Your task to perform on an android device: check battery use Image 0: 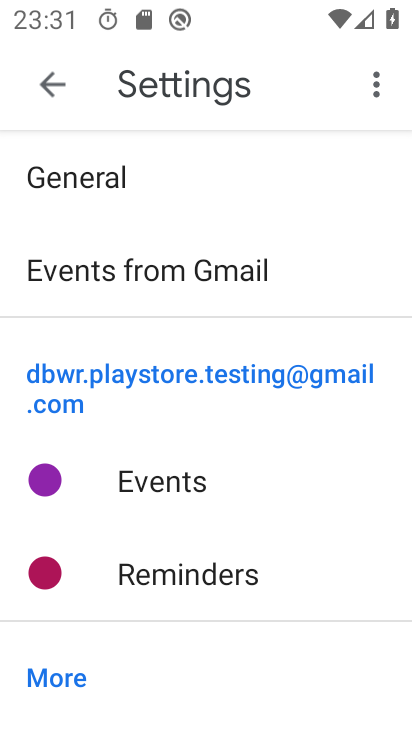
Step 0: press home button
Your task to perform on an android device: check battery use Image 1: 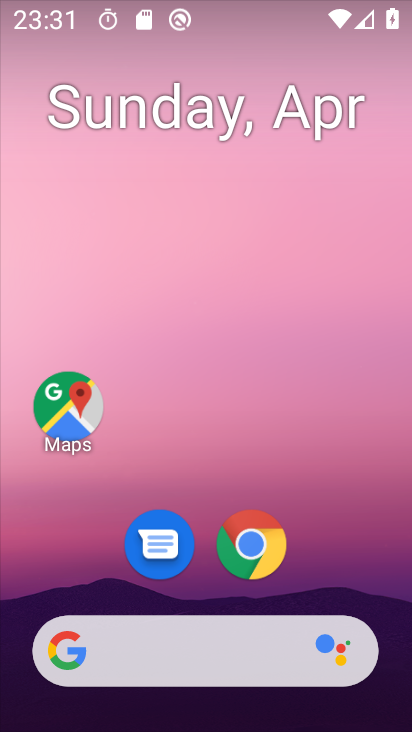
Step 1: drag from (330, 481) to (346, 288)
Your task to perform on an android device: check battery use Image 2: 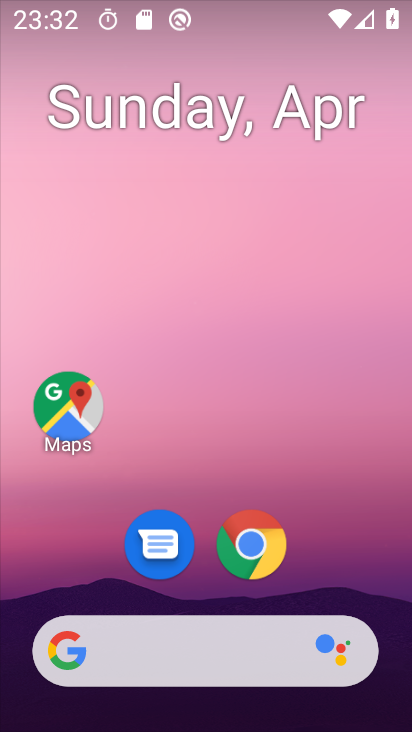
Step 2: drag from (375, 547) to (337, 237)
Your task to perform on an android device: check battery use Image 3: 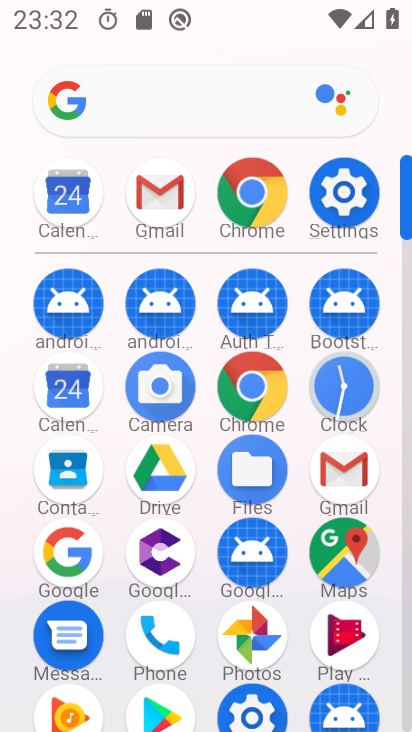
Step 3: click (354, 188)
Your task to perform on an android device: check battery use Image 4: 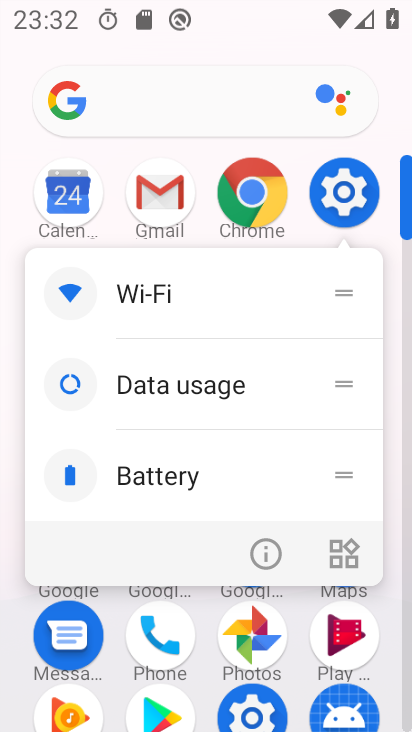
Step 4: click (346, 189)
Your task to perform on an android device: check battery use Image 5: 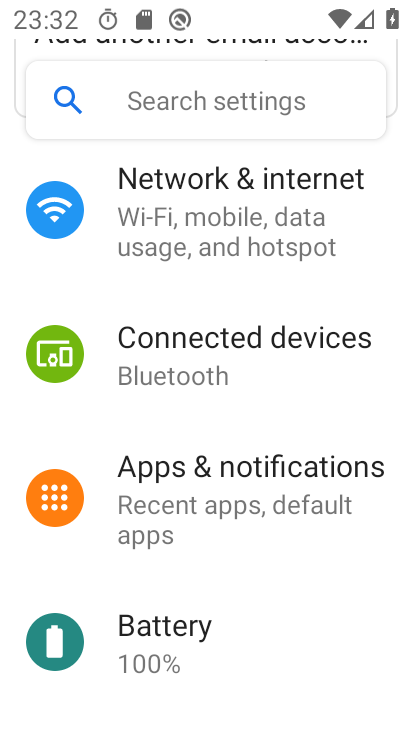
Step 5: click (194, 84)
Your task to perform on an android device: check battery use Image 6: 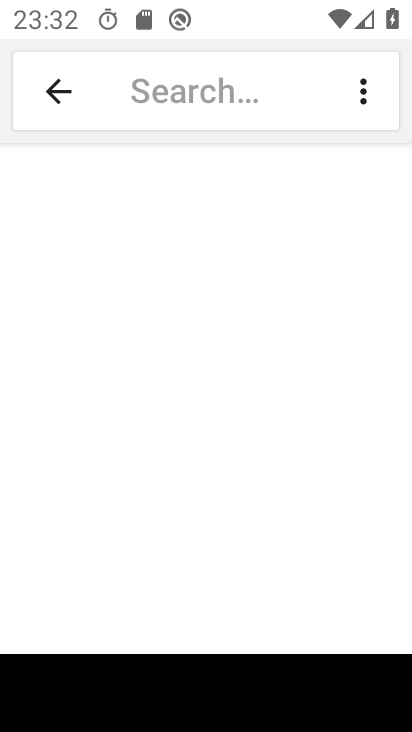
Step 6: type " battery"
Your task to perform on an android device: check battery use Image 7: 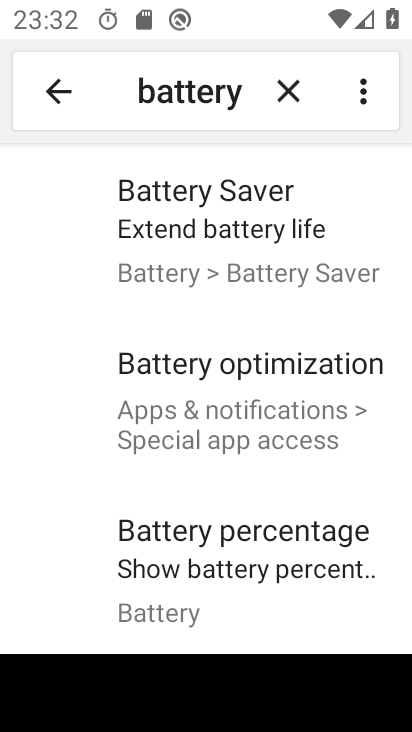
Step 7: click (164, 251)
Your task to perform on an android device: check battery use Image 8: 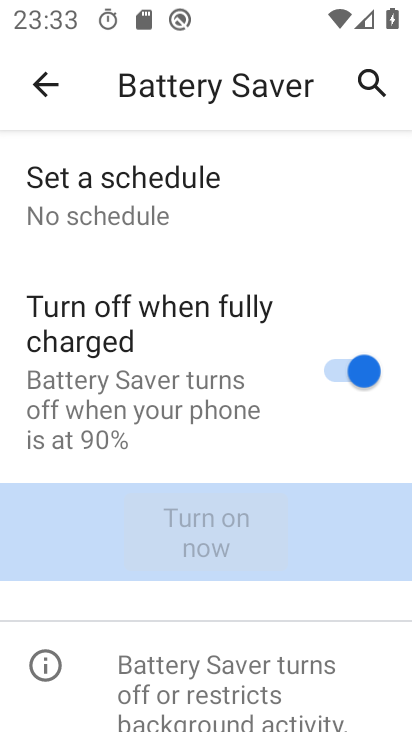
Step 8: drag from (211, 438) to (235, 185)
Your task to perform on an android device: check battery use Image 9: 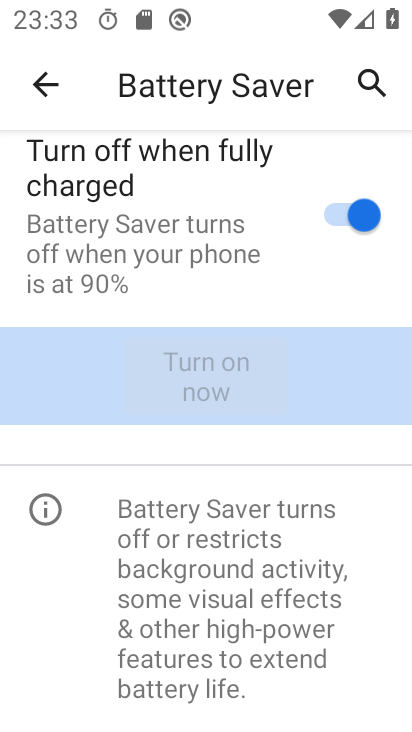
Step 9: click (24, 83)
Your task to perform on an android device: check battery use Image 10: 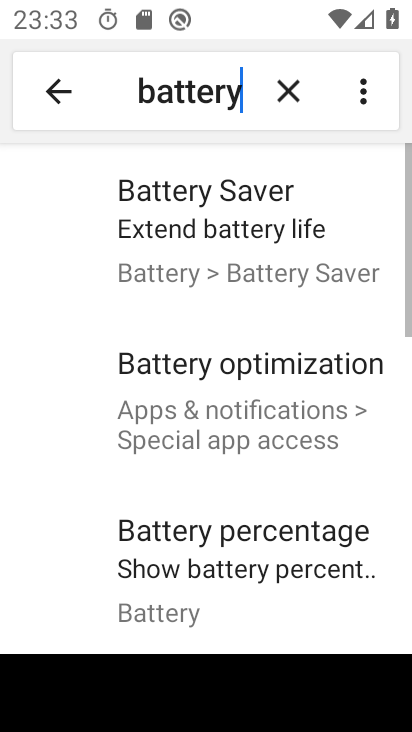
Step 10: click (71, 81)
Your task to perform on an android device: check battery use Image 11: 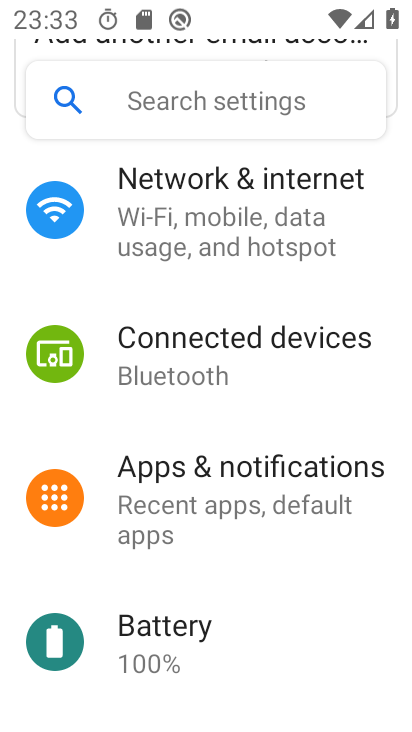
Step 11: click (202, 639)
Your task to perform on an android device: check battery use Image 12: 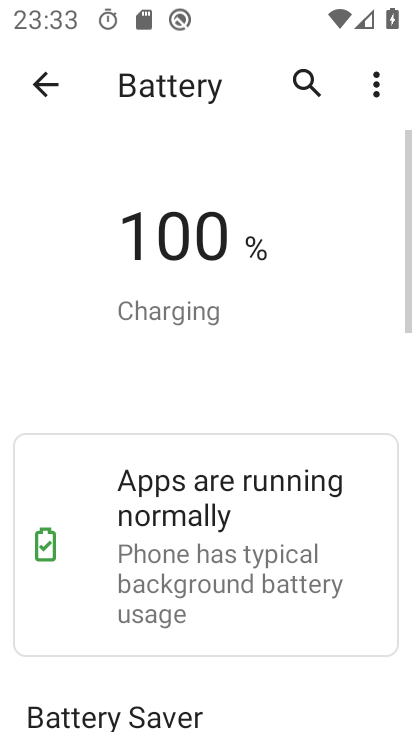
Step 12: drag from (271, 650) to (281, 307)
Your task to perform on an android device: check battery use Image 13: 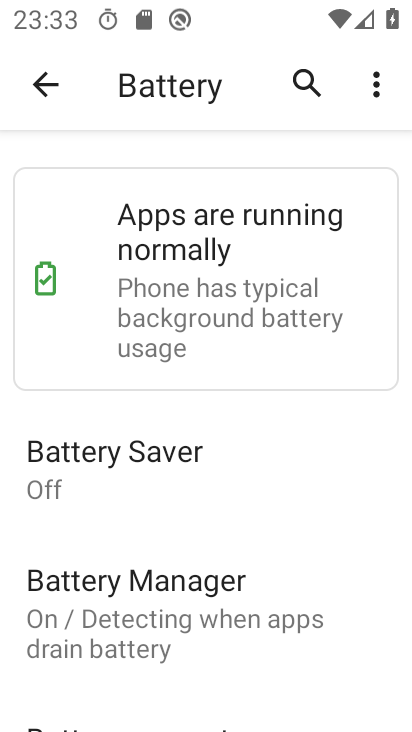
Step 13: drag from (231, 582) to (260, 240)
Your task to perform on an android device: check battery use Image 14: 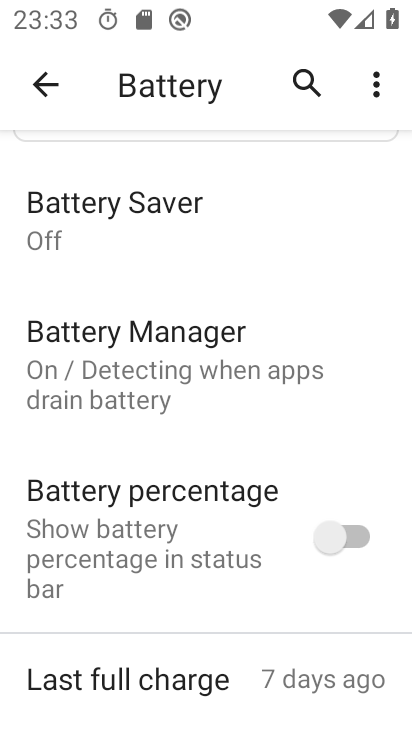
Step 14: click (176, 365)
Your task to perform on an android device: check battery use Image 15: 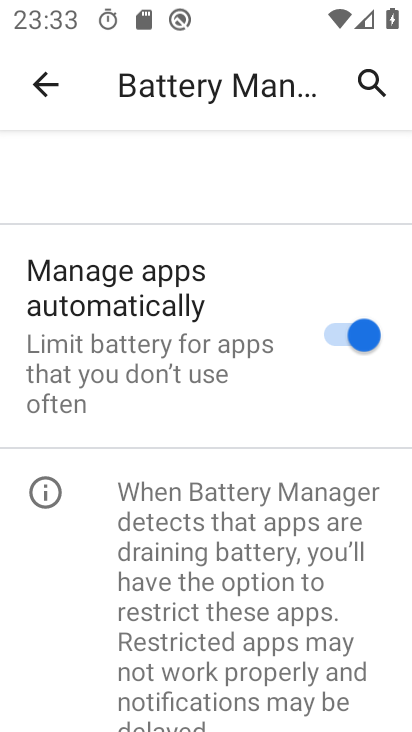
Step 15: drag from (198, 375) to (264, 111)
Your task to perform on an android device: check battery use Image 16: 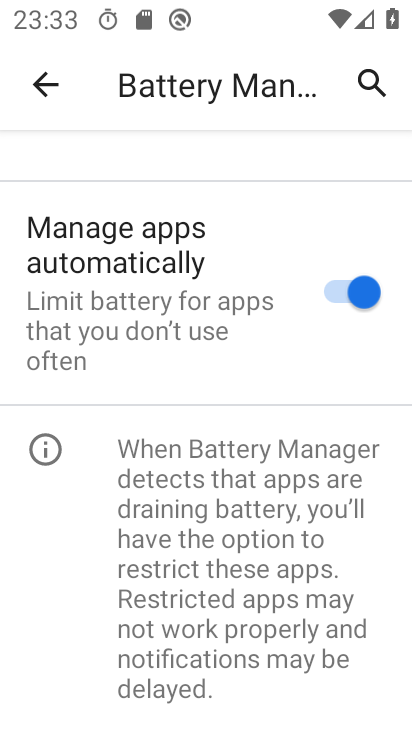
Step 16: click (36, 77)
Your task to perform on an android device: check battery use Image 17: 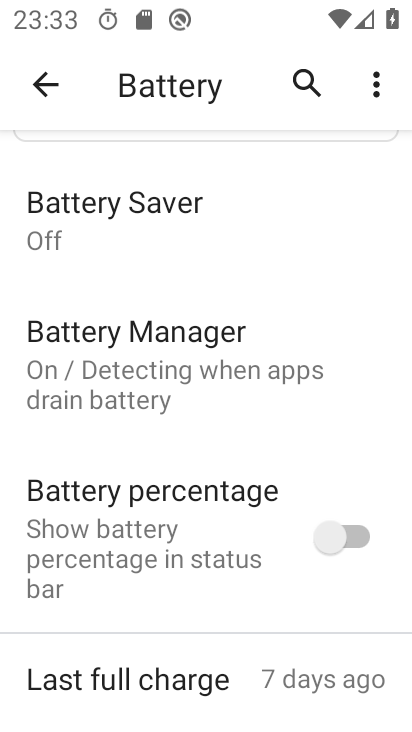
Step 17: task complete